Your task to perform on an android device: Open Reddit.com Image 0: 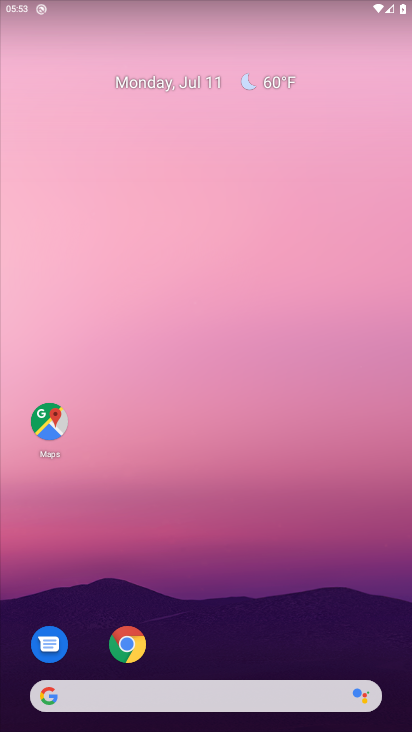
Step 0: drag from (191, 619) to (158, 374)
Your task to perform on an android device: Open Reddit.com Image 1: 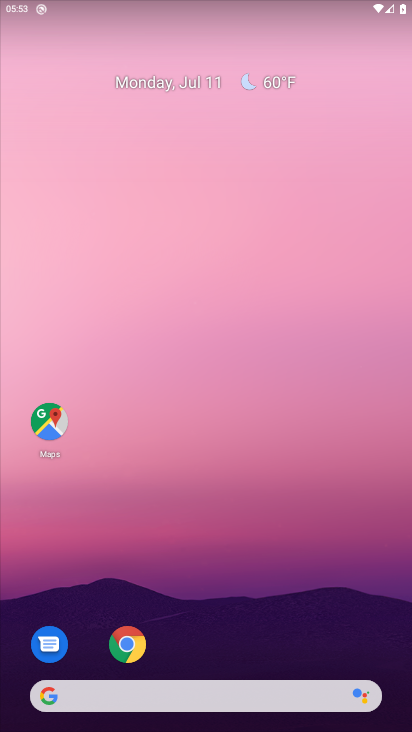
Step 1: drag from (194, 680) to (168, 219)
Your task to perform on an android device: Open Reddit.com Image 2: 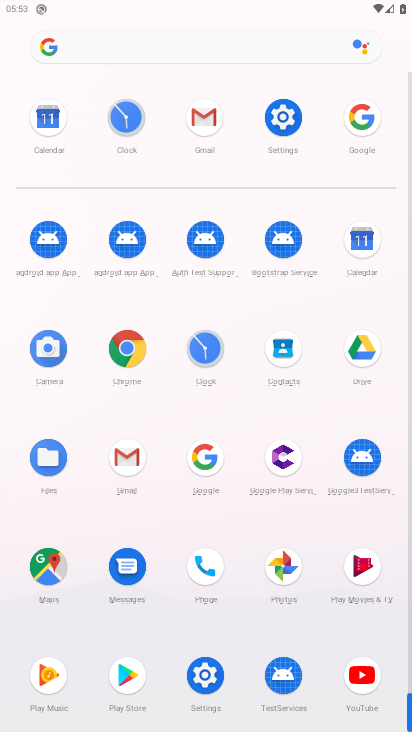
Step 2: click (204, 465)
Your task to perform on an android device: Open Reddit.com Image 3: 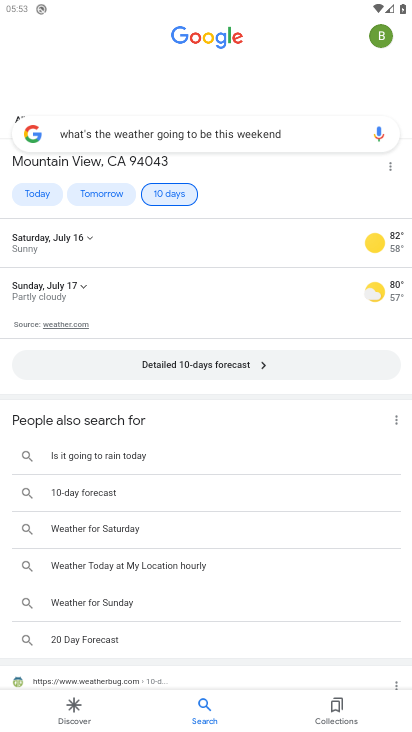
Step 3: click (298, 132)
Your task to perform on an android device: Open Reddit.com Image 4: 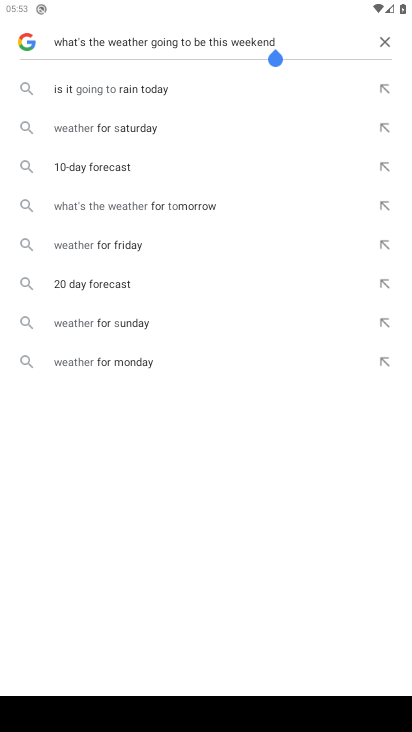
Step 4: click (382, 42)
Your task to perform on an android device: Open Reddit.com Image 5: 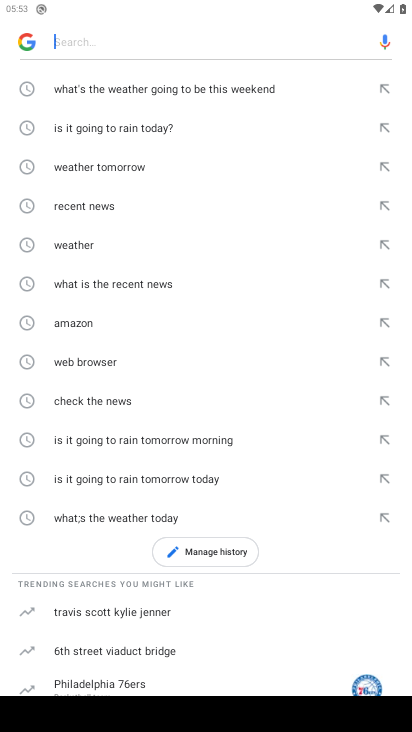
Step 5: type "reddit.com"
Your task to perform on an android device: Open Reddit.com Image 6: 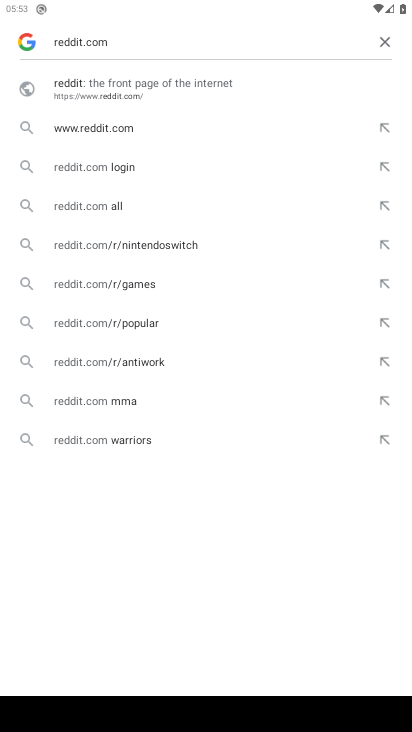
Step 6: click (107, 128)
Your task to perform on an android device: Open Reddit.com Image 7: 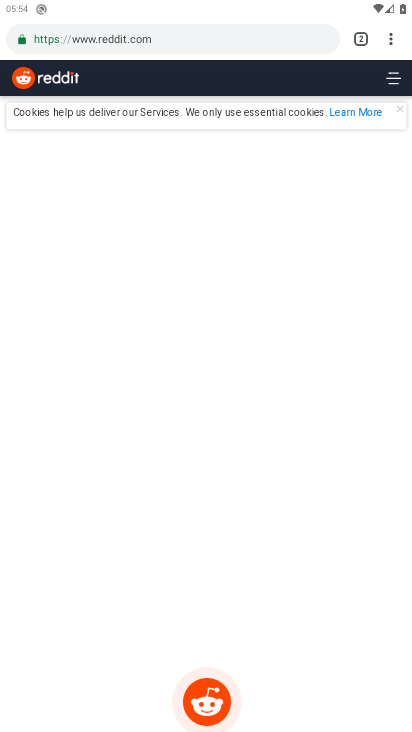
Step 7: task complete